Your task to perform on an android device: Open sound settings Image 0: 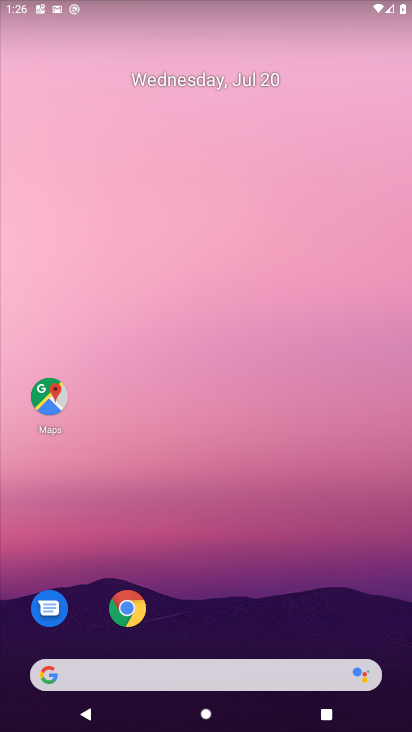
Step 0: drag from (228, 665) to (229, 186)
Your task to perform on an android device: Open sound settings Image 1: 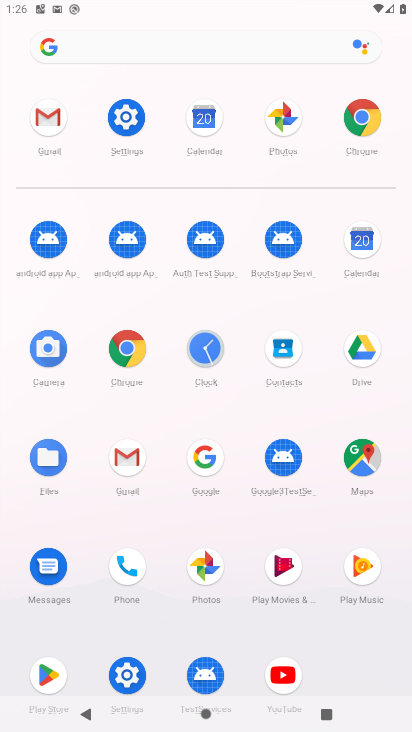
Step 1: click (131, 125)
Your task to perform on an android device: Open sound settings Image 2: 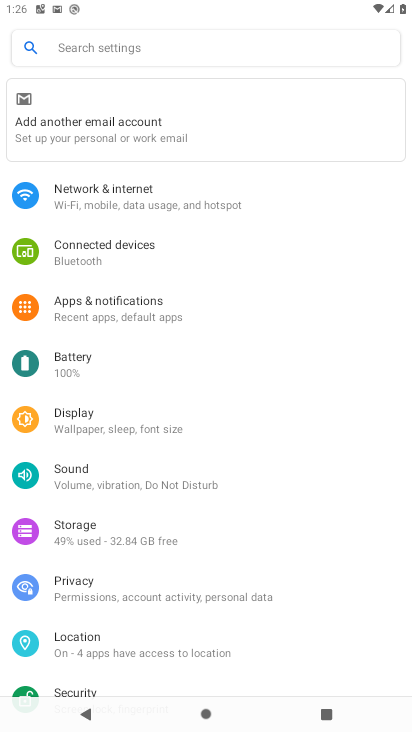
Step 2: click (100, 464)
Your task to perform on an android device: Open sound settings Image 3: 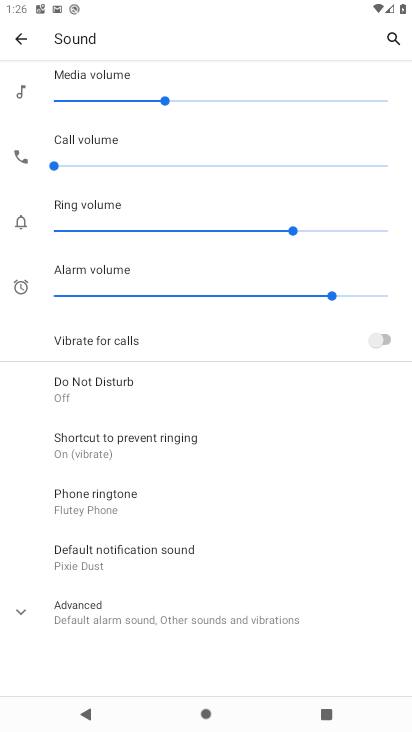
Step 3: click (109, 617)
Your task to perform on an android device: Open sound settings Image 4: 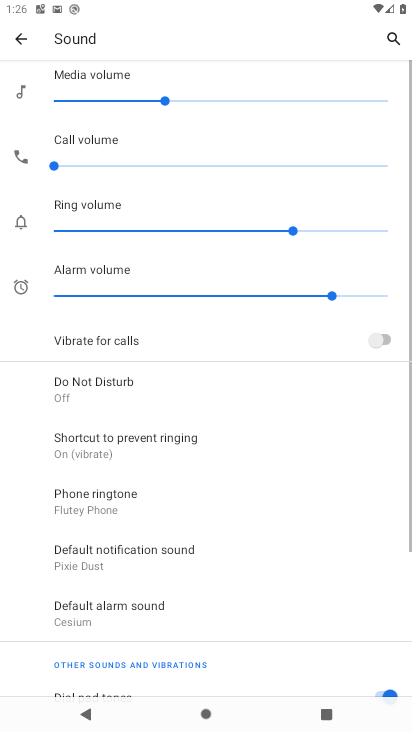
Step 4: task complete